Your task to perform on an android device: Open my contact list Image 0: 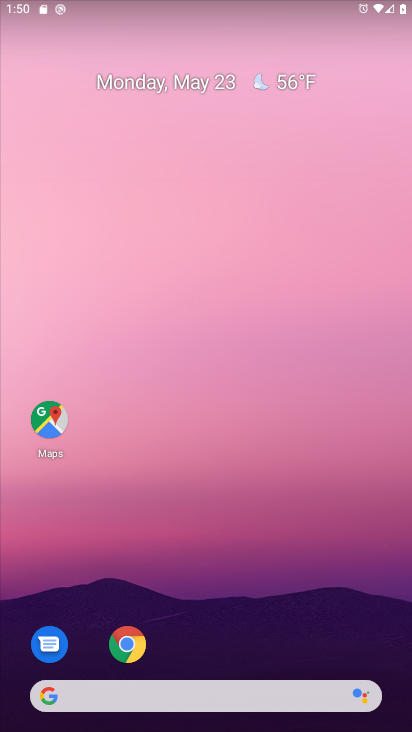
Step 0: drag from (223, 649) to (220, 386)
Your task to perform on an android device: Open my contact list Image 1: 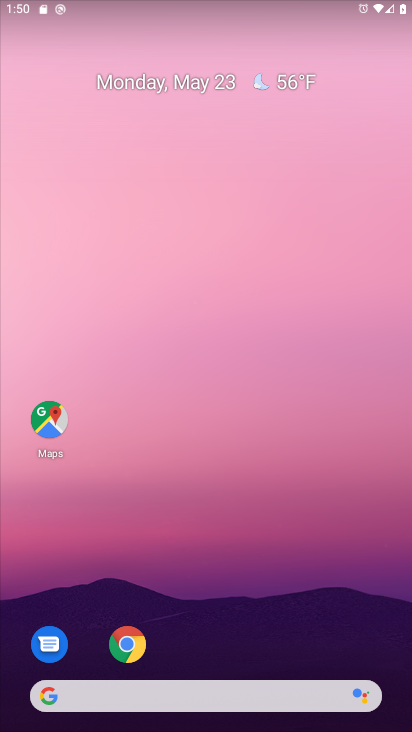
Step 1: drag from (194, 629) to (188, 136)
Your task to perform on an android device: Open my contact list Image 2: 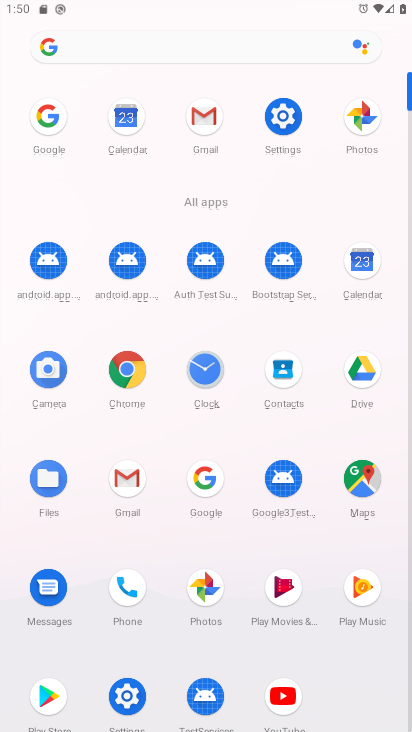
Step 2: click (268, 381)
Your task to perform on an android device: Open my contact list Image 3: 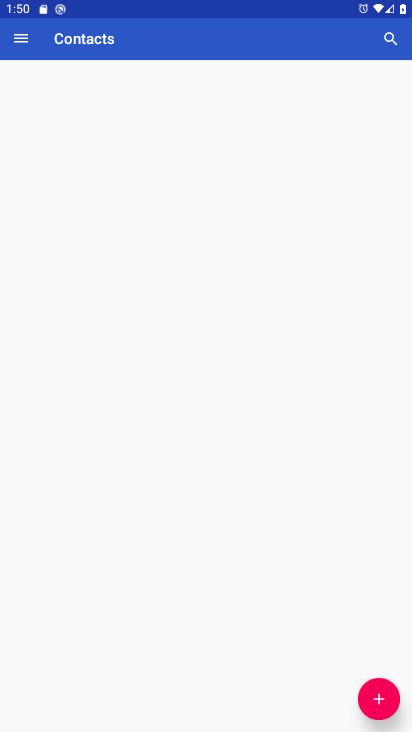
Step 3: click (383, 702)
Your task to perform on an android device: Open my contact list Image 4: 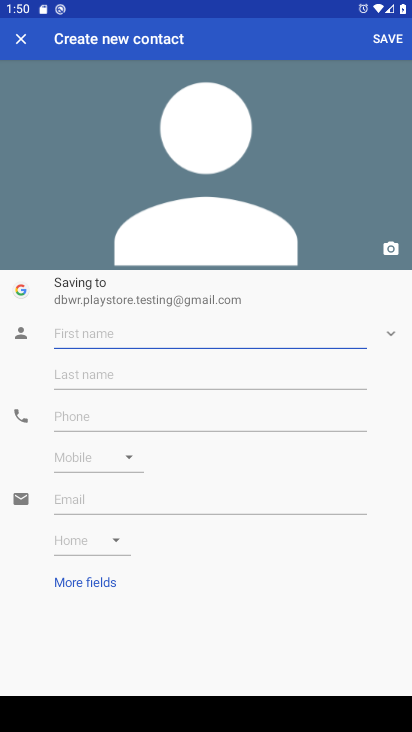
Step 4: click (130, 345)
Your task to perform on an android device: Open my contact list Image 5: 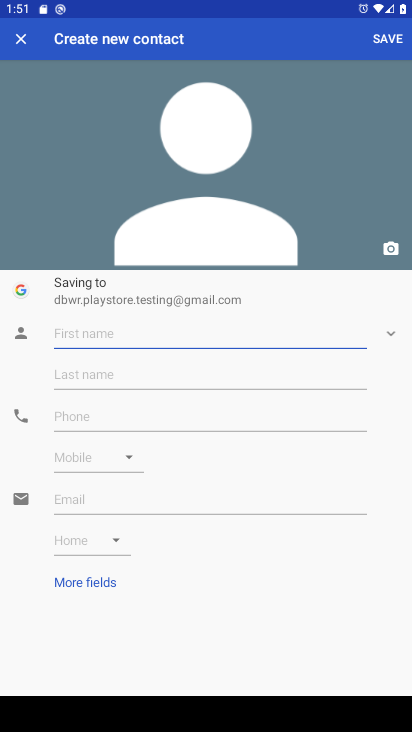
Step 5: type "Ranjana"
Your task to perform on an android device: Open my contact list Image 6: 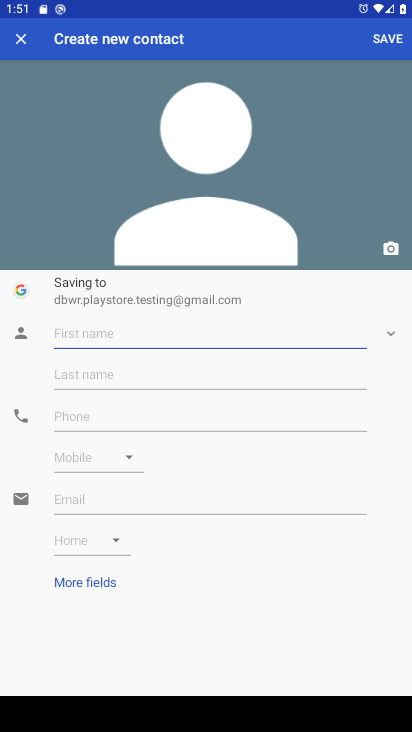
Step 6: click (109, 376)
Your task to perform on an android device: Open my contact list Image 7: 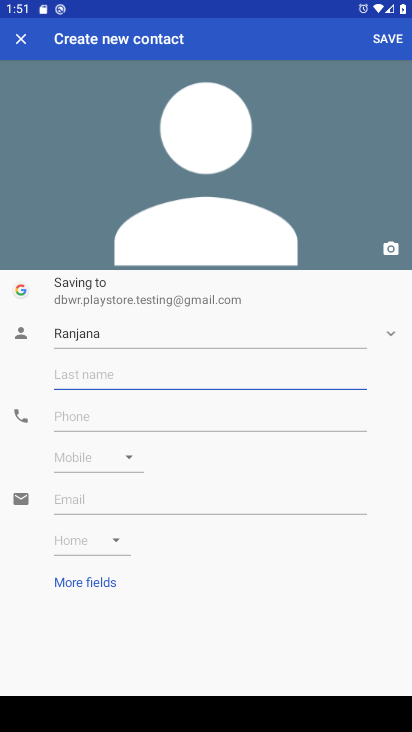
Step 7: type "sharma"
Your task to perform on an android device: Open my contact list Image 8: 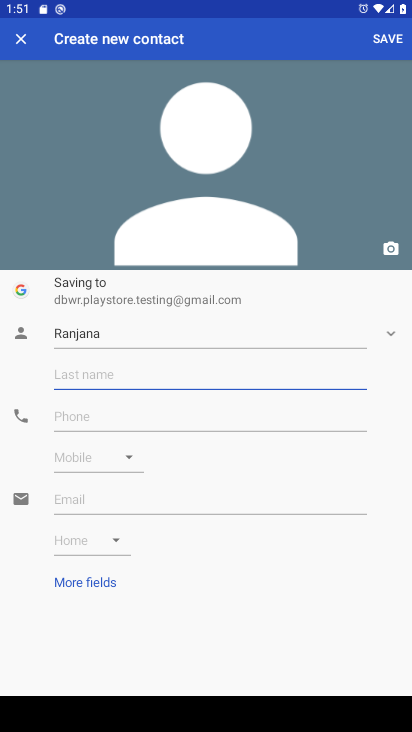
Step 8: click (74, 413)
Your task to perform on an android device: Open my contact list Image 9: 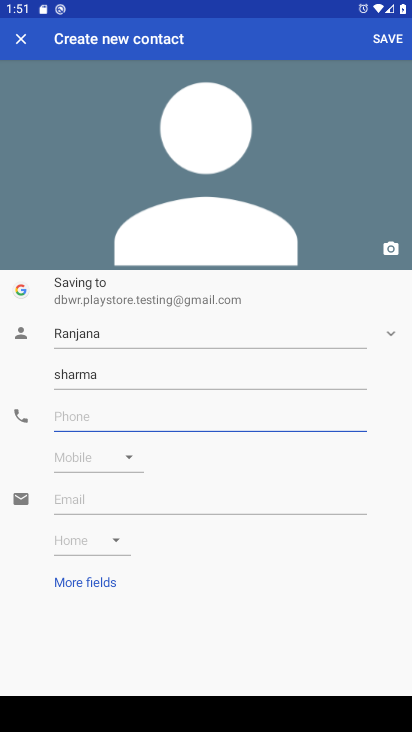
Step 9: type "6565565678"
Your task to perform on an android device: Open my contact list Image 10: 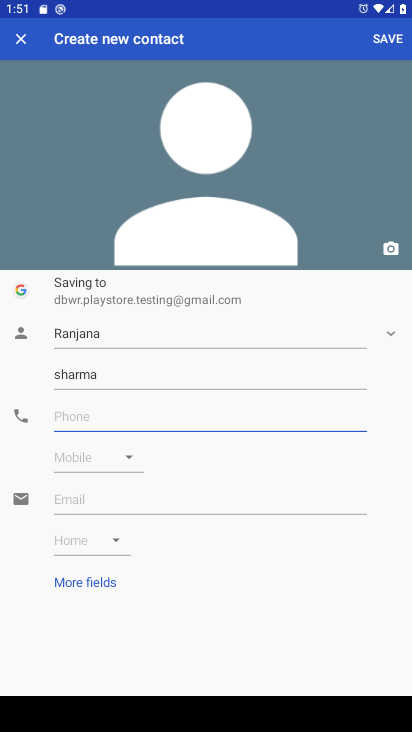
Step 10: click (145, 485)
Your task to perform on an android device: Open my contact list Image 11: 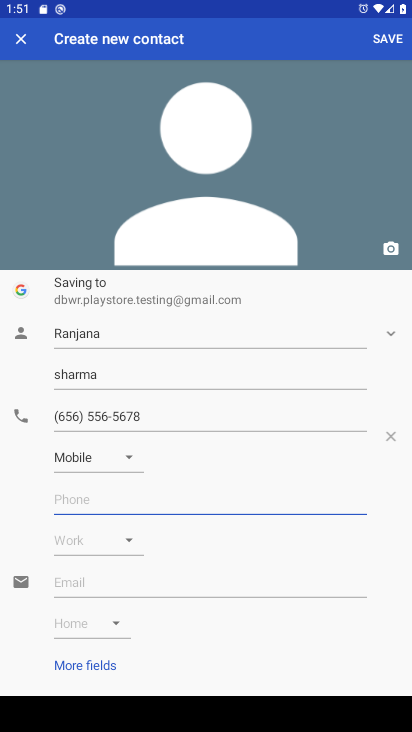
Step 11: click (388, 40)
Your task to perform on an android device: Open my contact list Image 12: 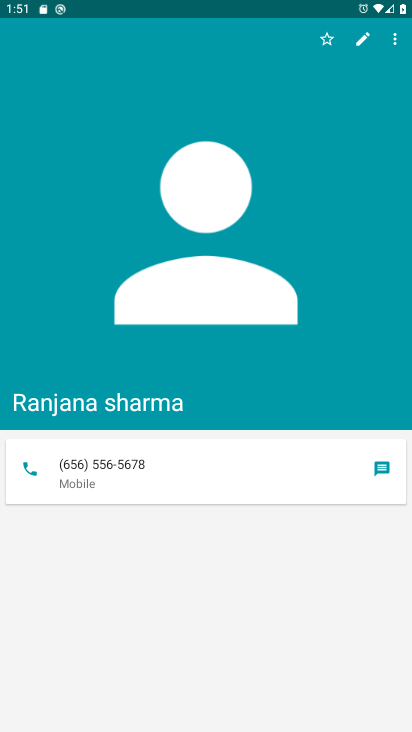
Step 12: task complete